Your task to perform on an android device: Open eBay Image 0: 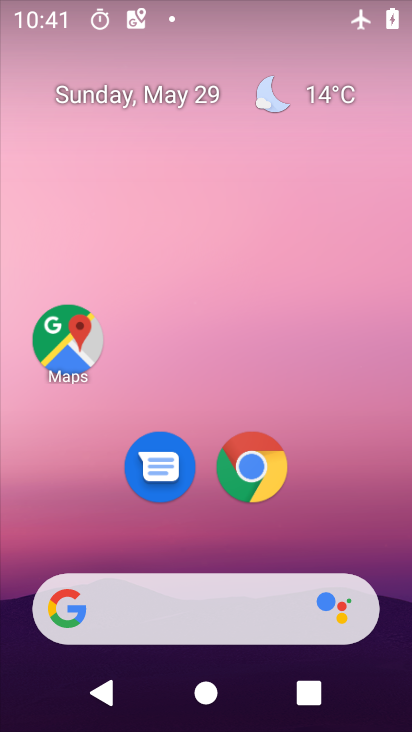
Step 0: click (242, 468)
Your task to perform on an android device: Open eBay Image 1: 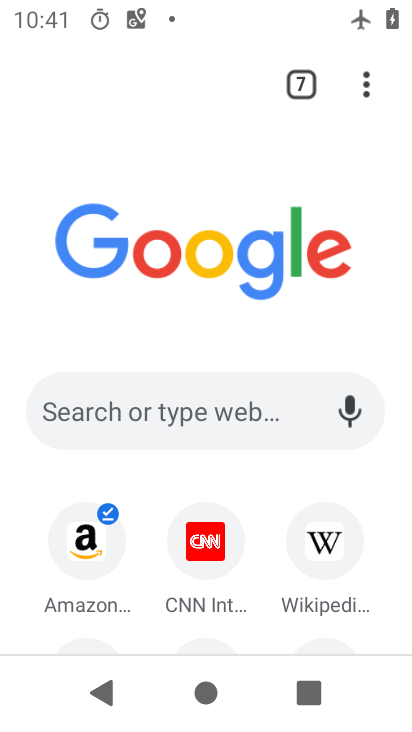
Step 1: drag from (212, 526) to (201, 318)
Your task to perform on an android device: Open eBay Image 2: 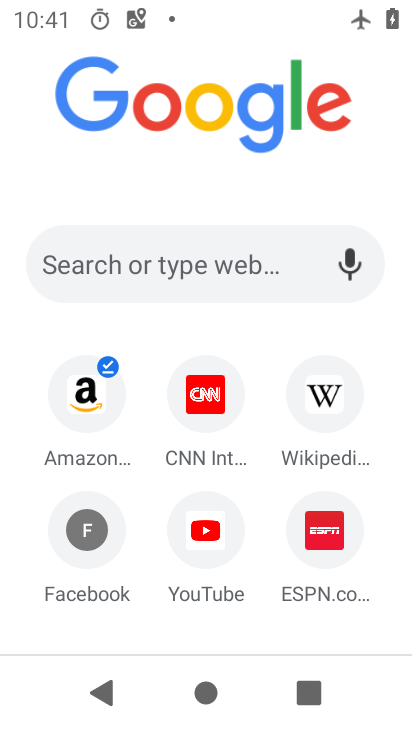
Step 2: click (180, 284)
Your task to perform on an android device: Open eBay Image 3: 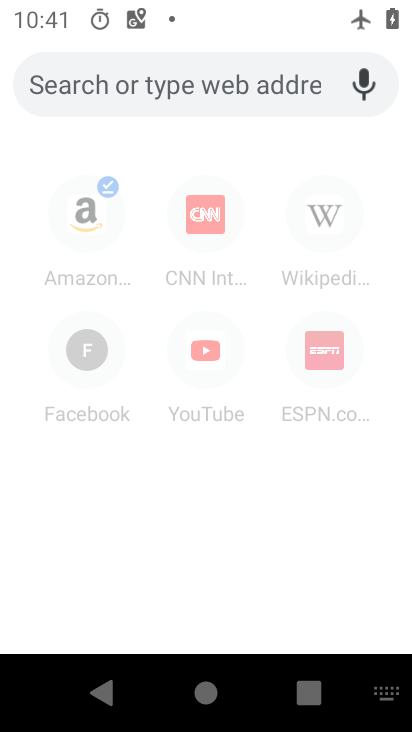
Step 3: type "eBay"
Your task to perform on an android device: Open eBay Image 4: 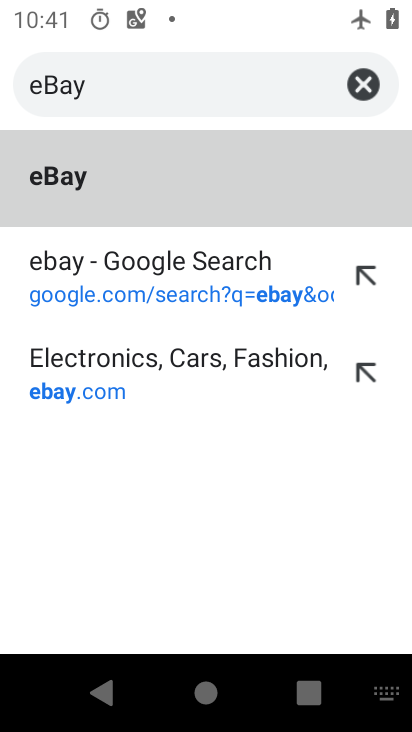
Step 4: click (301, 184)
Your task to perform on an android device: Open eBay Image 5: 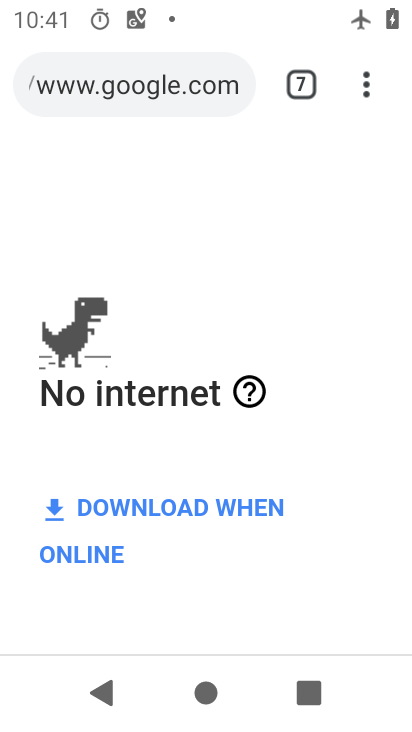
Step 5: task complete